Your task to perform on an android device: search for starred emails in the gmail app Image 0: 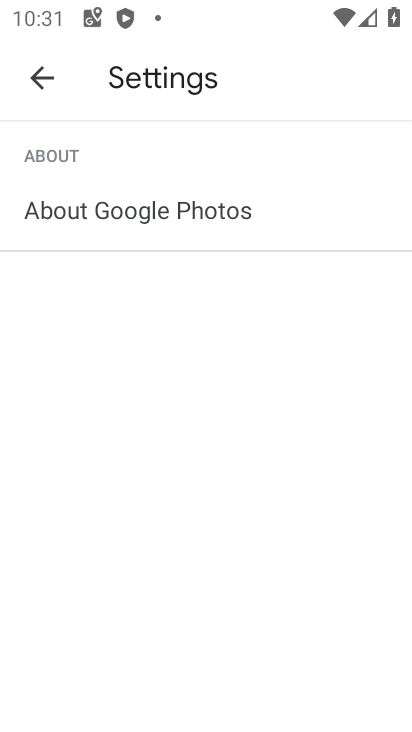
Step 0: press back button
Your task to perform on an android device: search for starred emails in the gmail app Image 1: 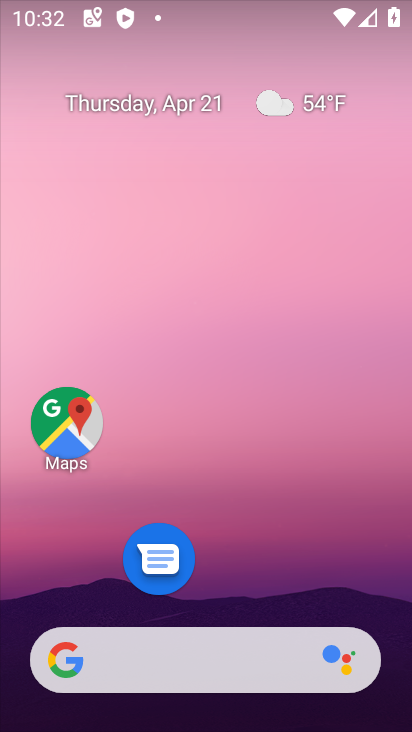
Step 1: drag from (279, 514) to (320, 44)
Your task to perform on an android device: search for starred emails in the gmail app Image 2: 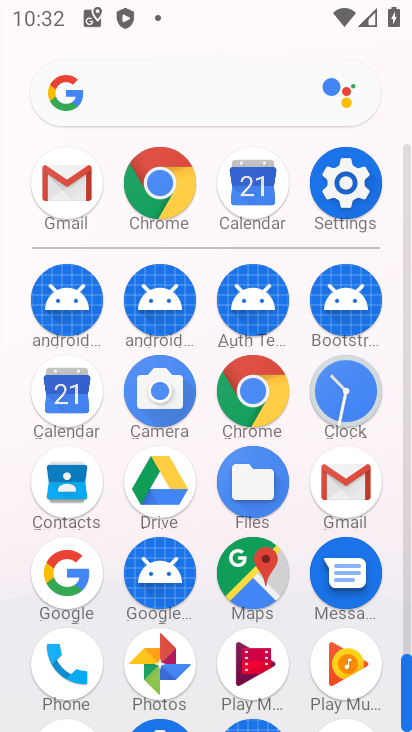
Step 2: click (76, 183)
Your task to perform on an android device: search for starred emails in the gmail app Image 3: 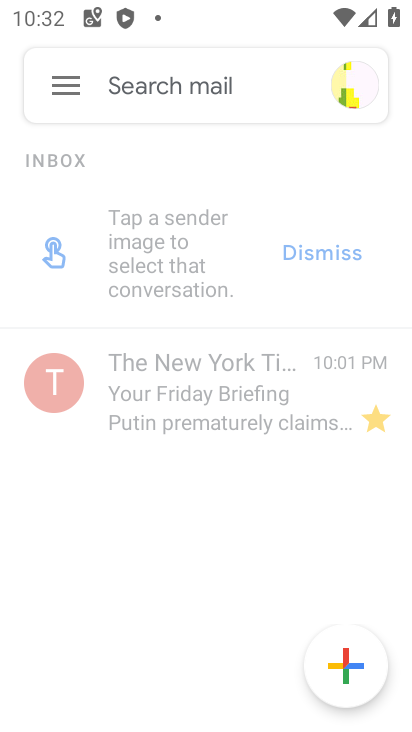
Step 3: click (47, 81)
Your task to perform on an android device: search for starred emails in the gmail app Image 4: 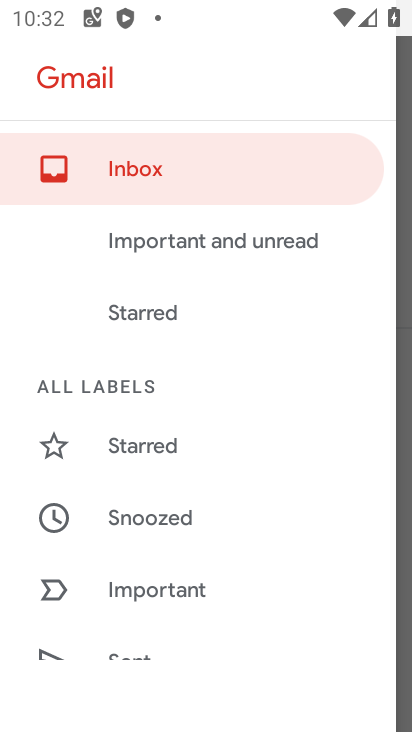
Step 4: click (158, 445)
Your task to perform on an android device: search for starred emails in the gmail app Image 5: 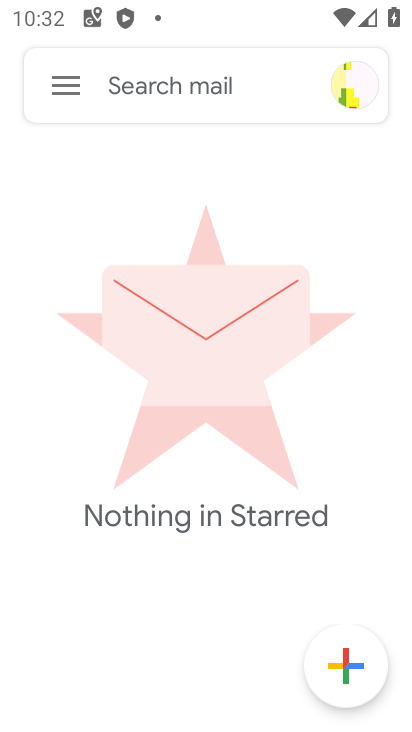
Step 5: click (48, 77)
Your task to perform on an android device: search for starred emails in the gmail app Image 6: 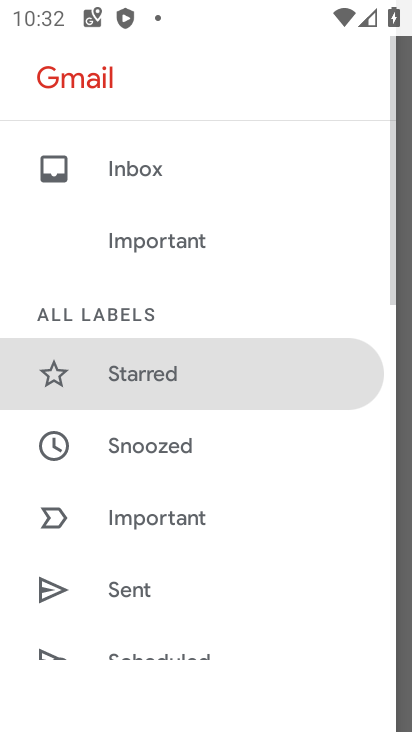
Step 6: task complete